Your task to perform on an android device: Open the phone app and click the voicemail tab. Image 0: 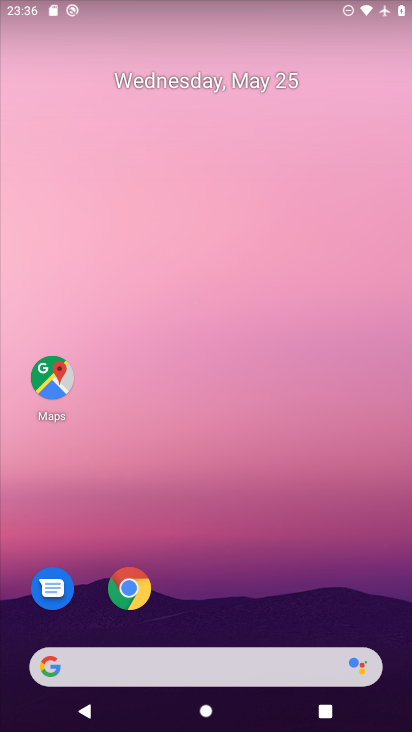
Step 0: drag from (291, 589) to (343, 112)
Your task to perform on an android device: Open the phone app and click the voicemail tab. Image 1: 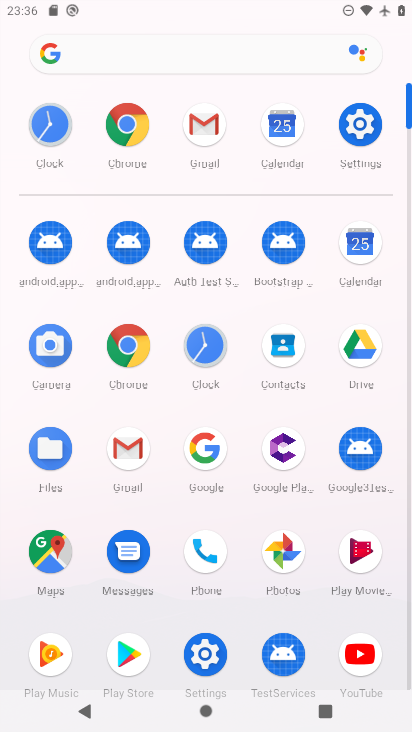
Step 1: click (202, 546)
Your task to perform on an android device: Open the phone app and click the voicemail tab. Image 2: 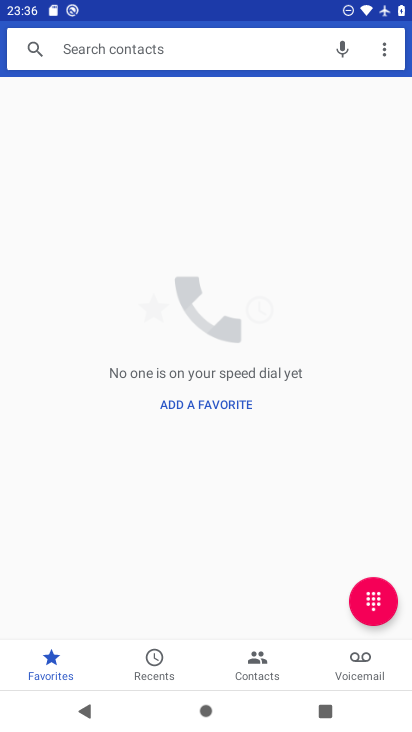
Step 2: click (362, 659)
Your task to perform on an android device: Open the phone app and click the voicemail tab. Image 3: 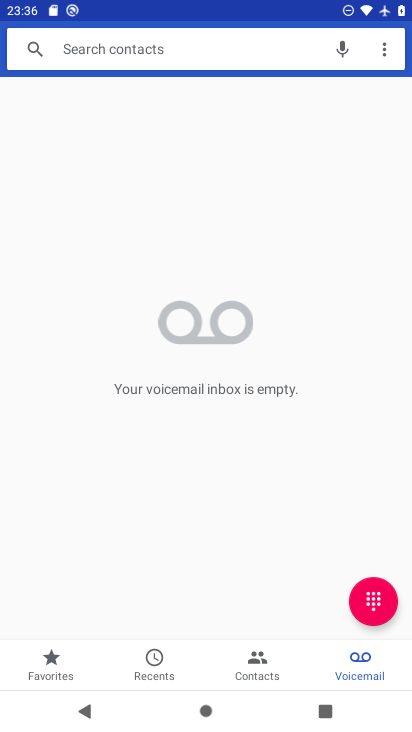
Step 3: task complete